Your task to perform on an android device: Open my contact list Image 0: 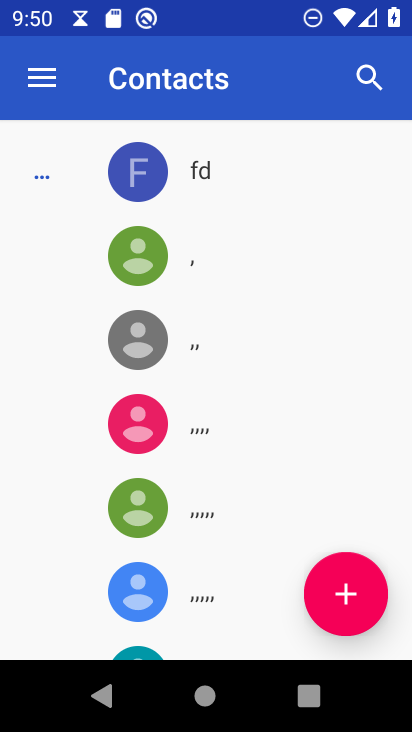
Step 0: task complete